Your task to perform on an android device: What is the recent news? Image 0: 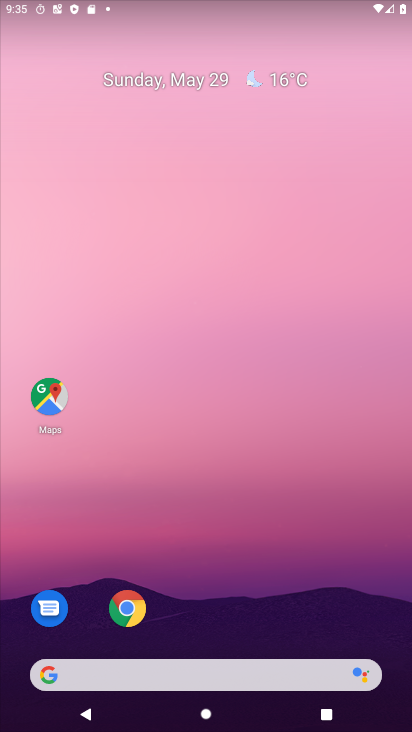
Step 0: click (187, 675)
Your task to perform on an android device: What is the recent news? Image 1: 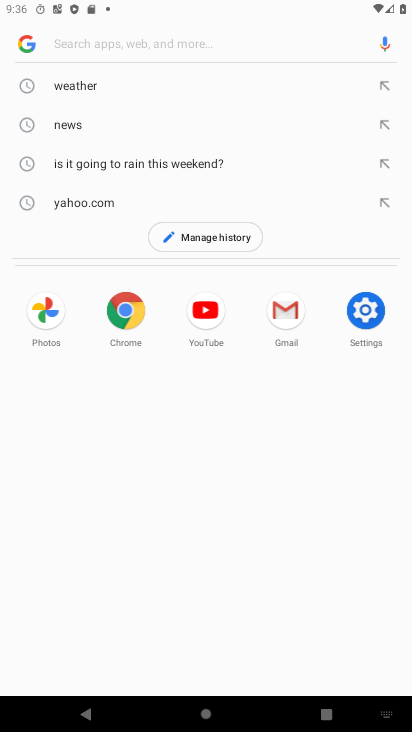
Step 1: type "recent news"
Your task to perform on an android device: What is the recent news? Image 2: 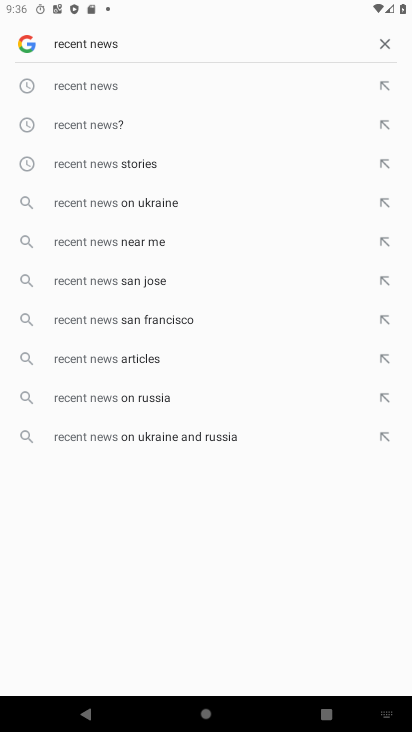
Step 2: click (71, 79)
Your task to perform on an android device: What is the recent news? Image 3: 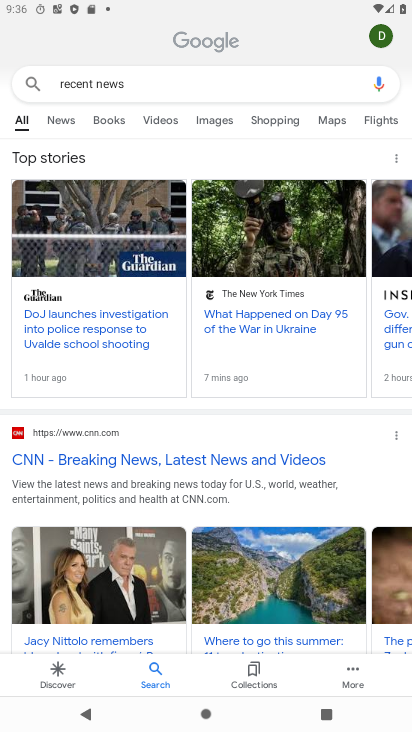
Step 3: task complete